Your task to perform on an android device: Open Wikipedia Image 0: 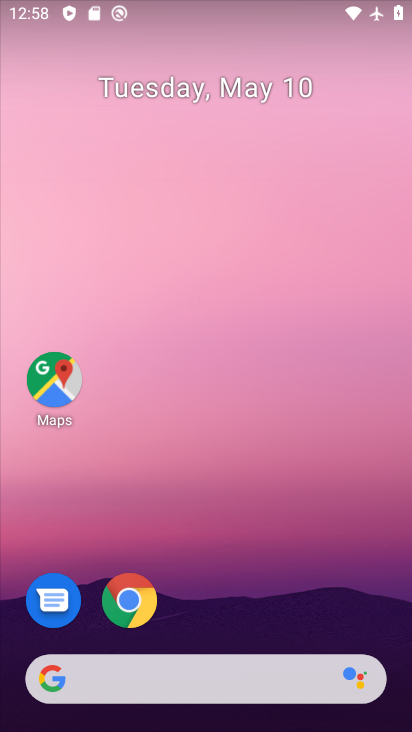
Step 0: drag from (265, 604) to (320, 255)
Your task to perform on an android device: Open Wikipedia Image 1: 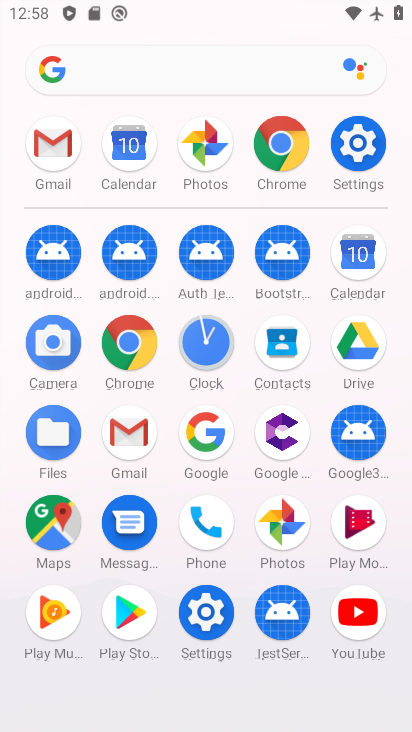
Step 1: click (369, 156)
Your task to perform on an android device: Open Wikipedia Image 2: 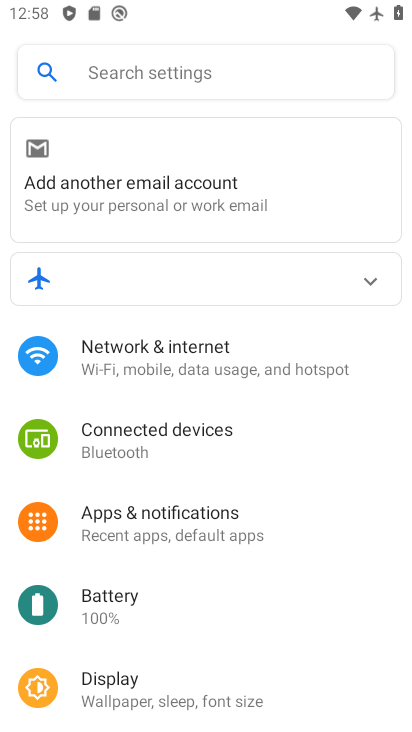
Step 2: drag from (175, 543) to (214, 268)
Your task to perform on an android device: Open Wikipedia Image 3: 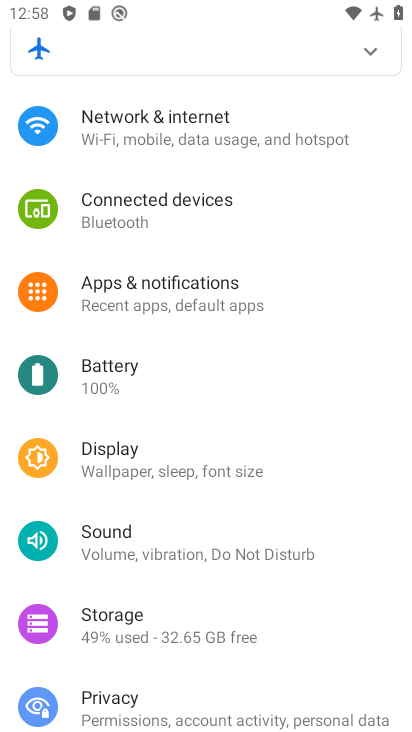
Step 3: drag from (225, 499) to (259, 212)
Your task to perform on an android device: Open Wikipedia Image 4: 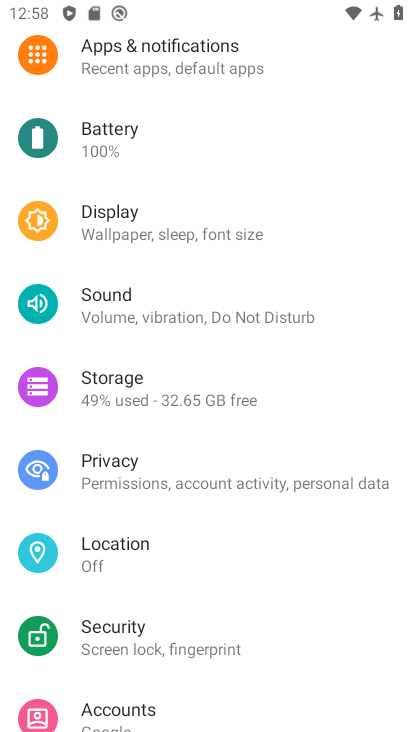
Step 4: drag from (184, 572) to (221, 372)
Your task to perform on an android device: Open Wikipedia Image 5: 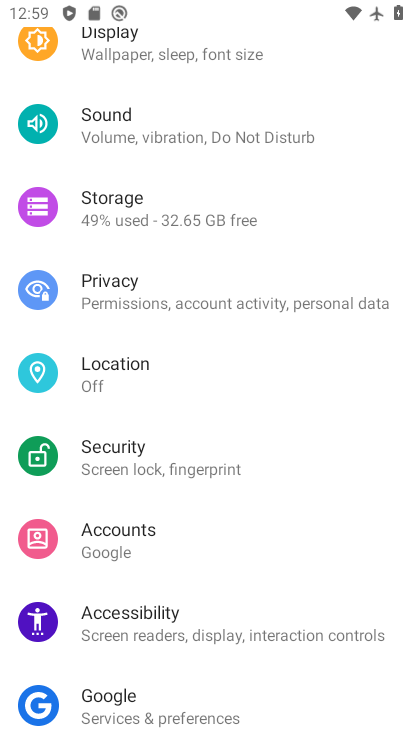
Step 5: drag from (195, 529) to (223, 390)
Your task to perform on an android device: Open Wikipedia Image 6: 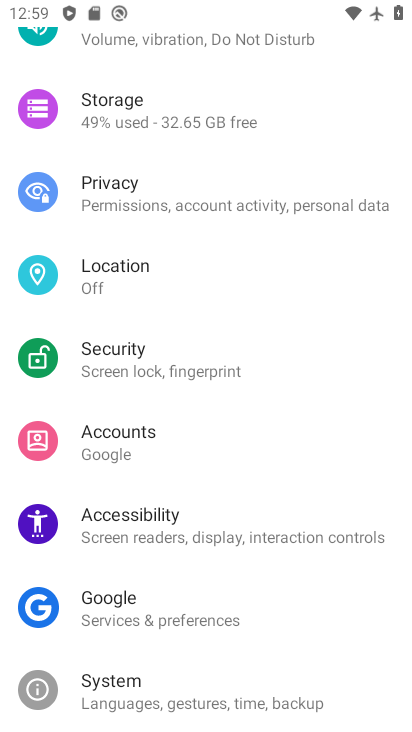
Step 6: press home button
Your task to perform on an android device: Open Wikipedia Image 7: 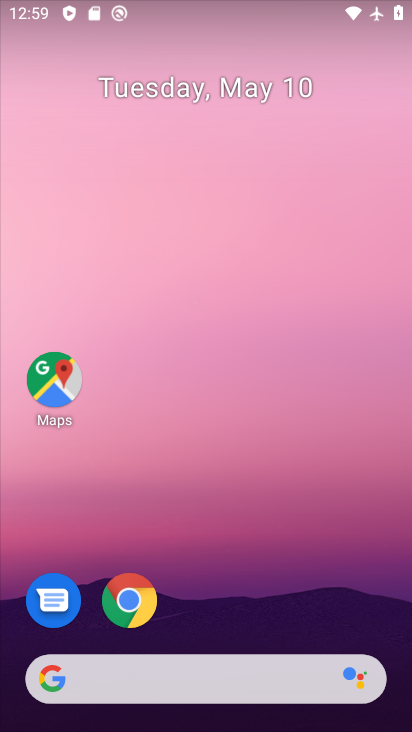
Step 7: click (162, 613)
Your task to perform on an android device: Open Wikipedia Image 8: 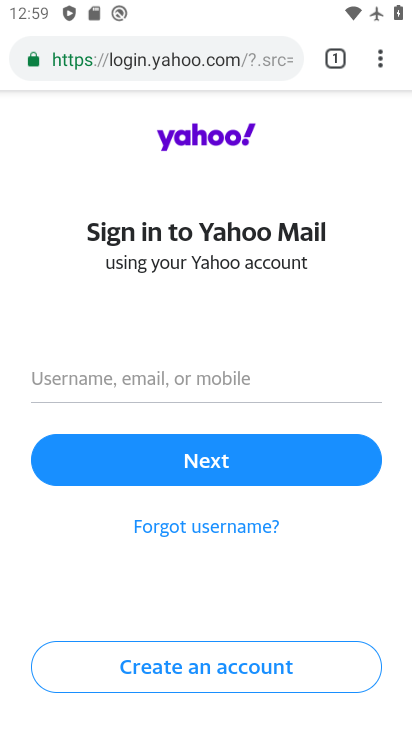
Step 8: click (198, 45)
Your task to perform on an android device: Open Wikipedia Image 9: 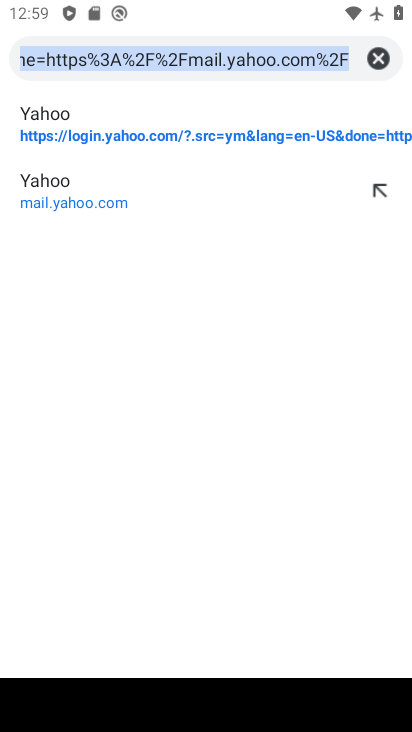
Step 9: type "wikipedia"
Your task to perform on an android device: Open Wikipedia Image 10: 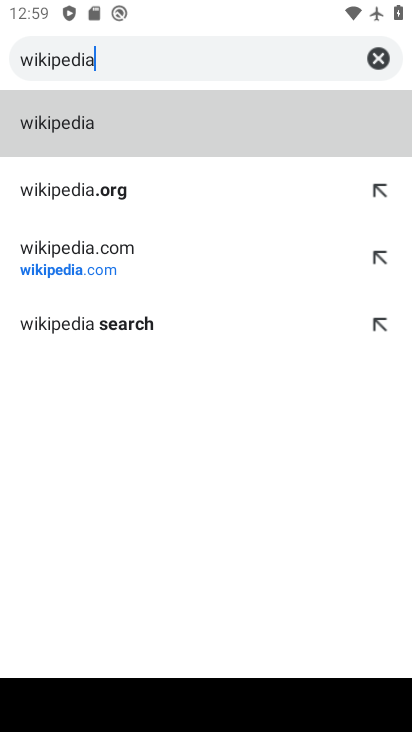
Step 10: click (109, 255)
Your task to perform on an android device: Open Wikipedia Image 11: 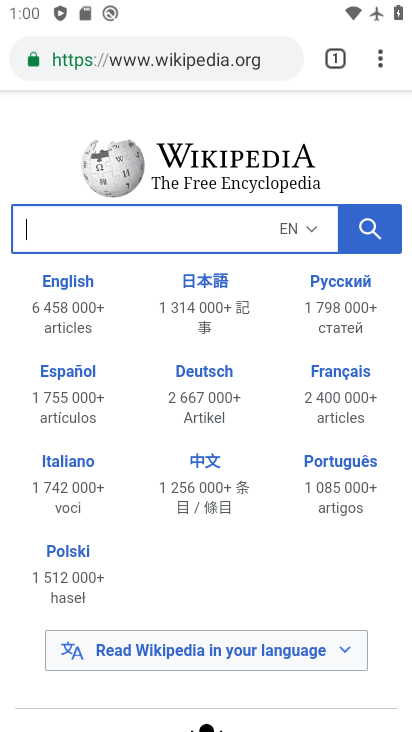
Step 11: task complete